Your task to perform on an android device: Open location settings Image 0: 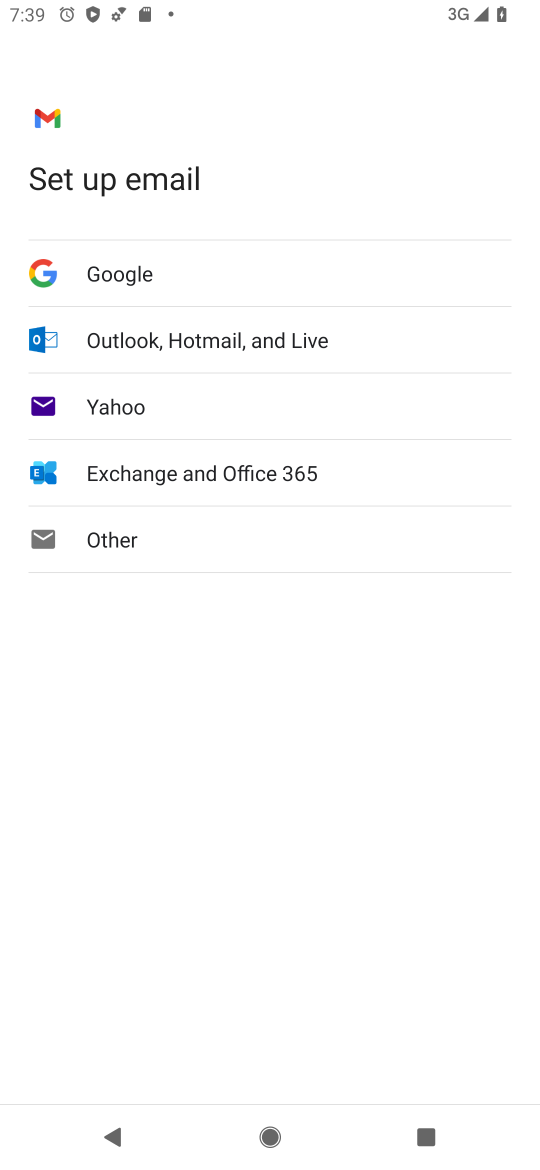
Step 0: press back button
Your task to perform on an android device: Open location settings Image 1: 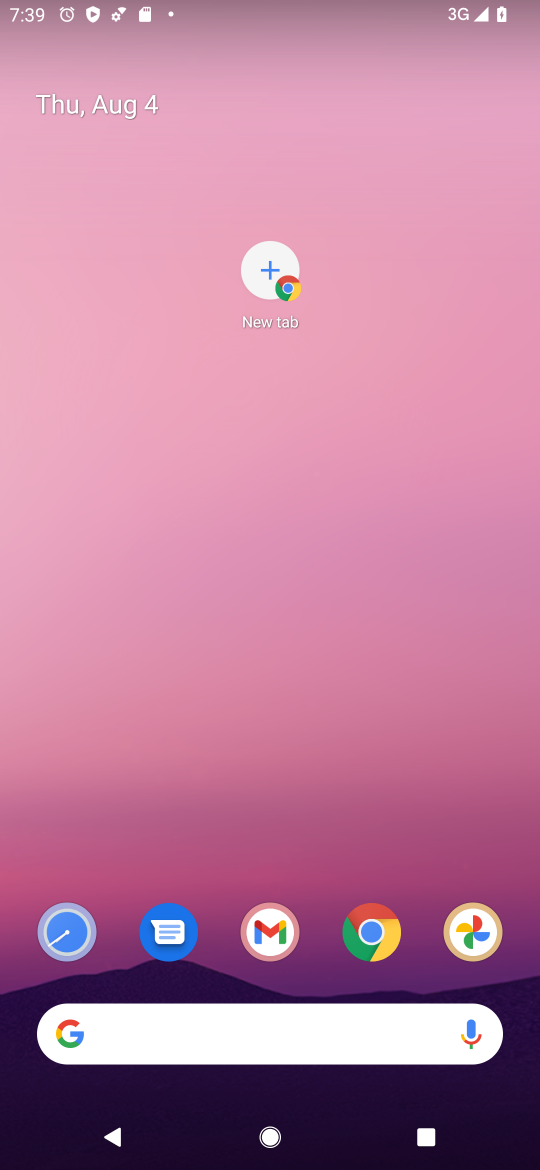
Step 1: click (255, 416)
Your task to perform on an android device: Open location settings Image 2: 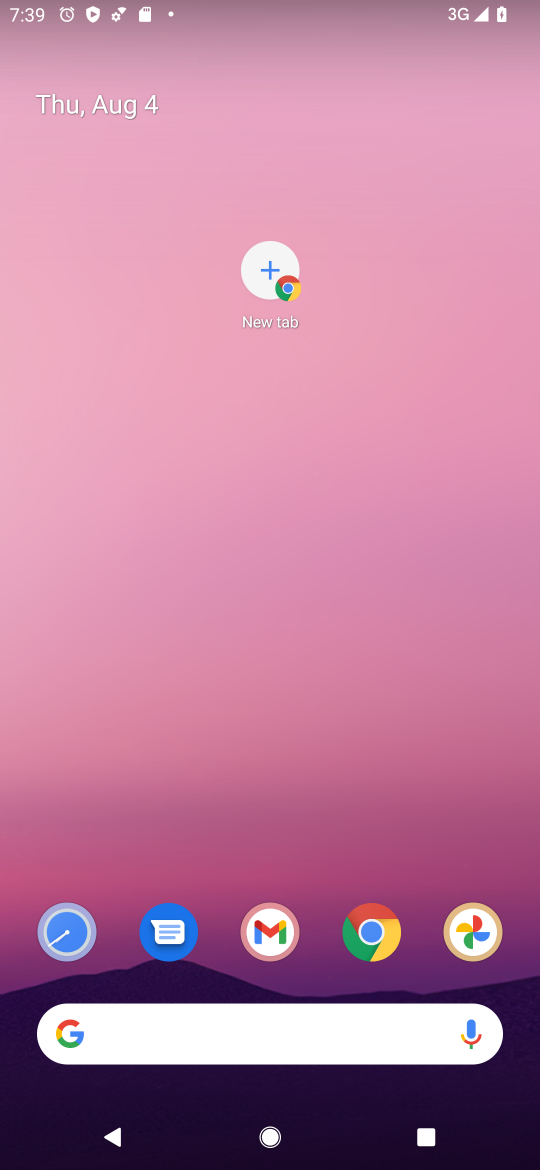
Step 2: drag from (271, 653) to (225, 179)
Your task to perform on an android device: Open location settings Image 3: 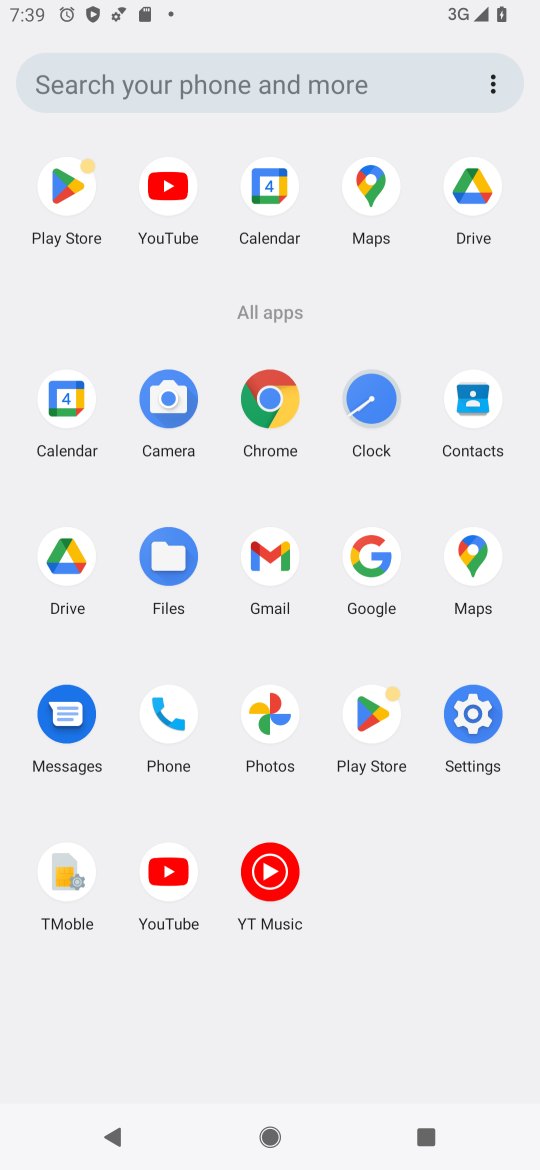
Step 3: click (143, 66)
Your task to perform on an android device: Open location settings Image 4: 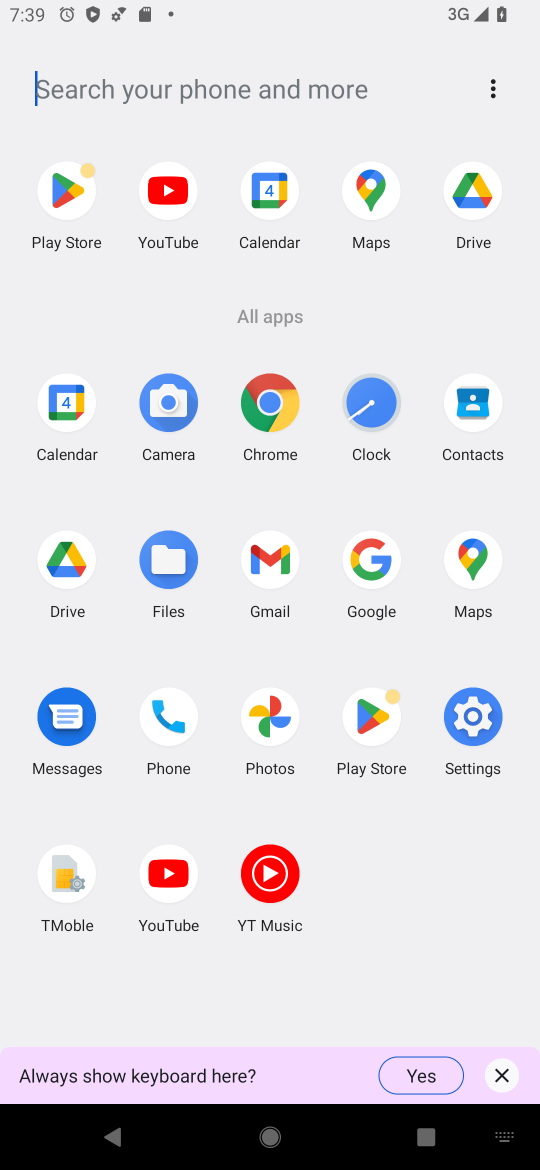
Step 4: click (480, 722)
Your task to perform on an android device: Open location settings Image 5: 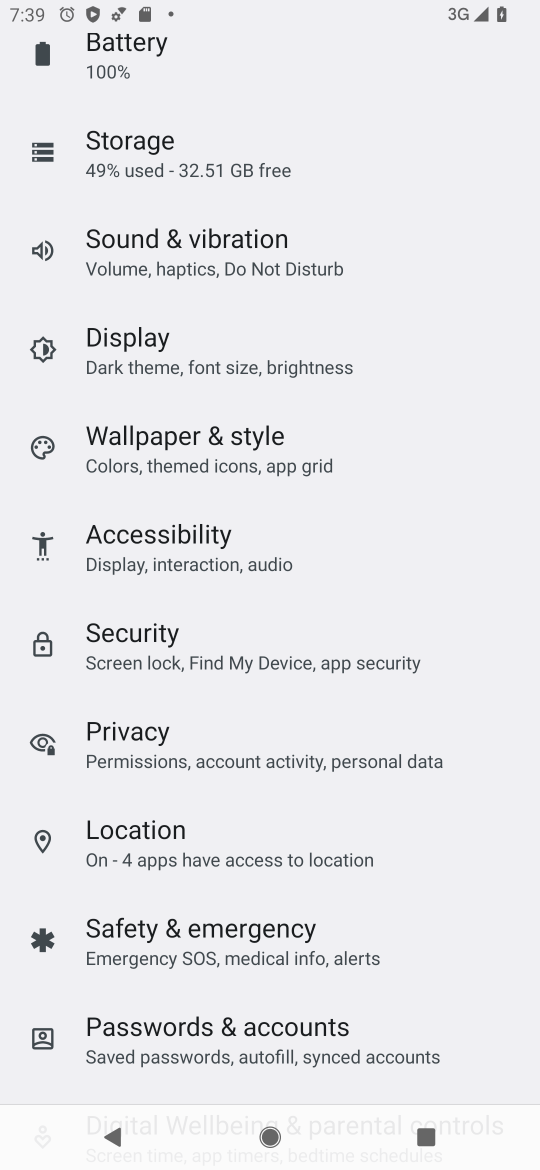
Step 5: click (159, 817)
Your task to perform on an android device: Open location settings Image 6: 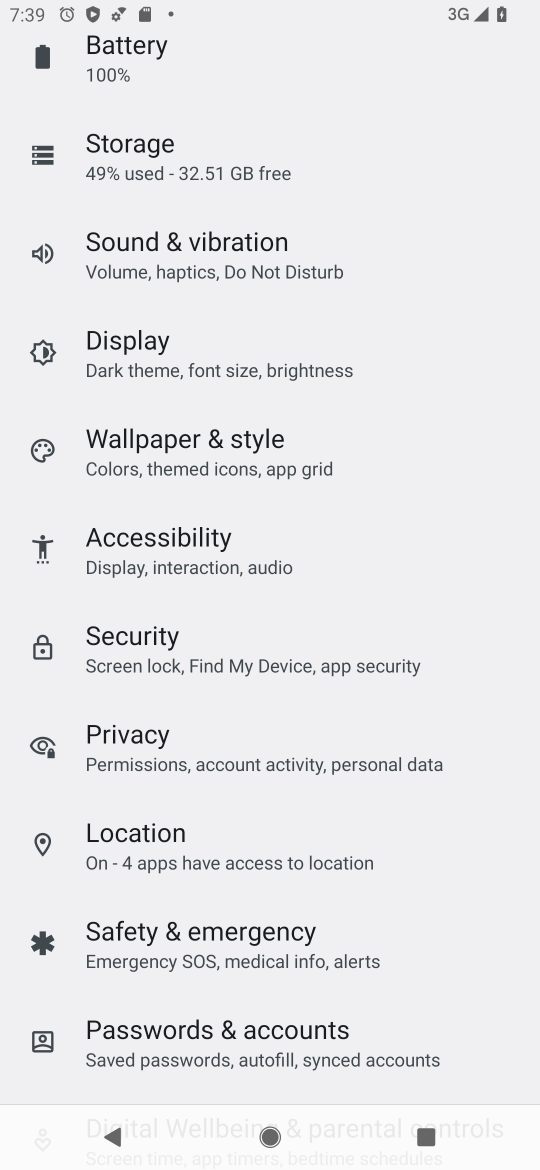
Step 6: click (153, 835)
Your task to perform on an android device: Open location settings Image 7: 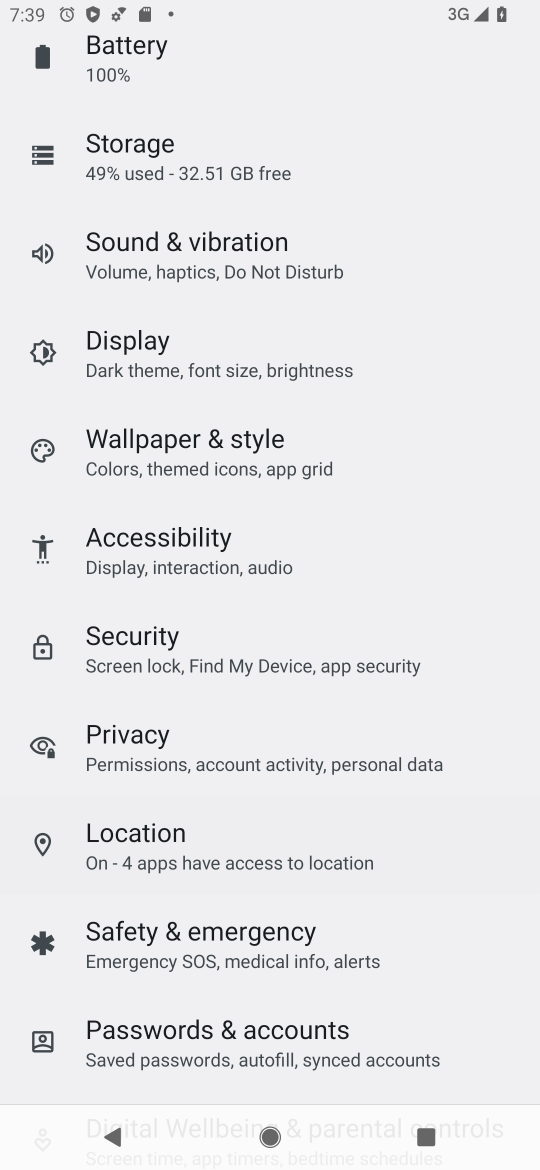
Step 7: click (153, 835)
Your task to perform on an android device: Open location settings Image 8: 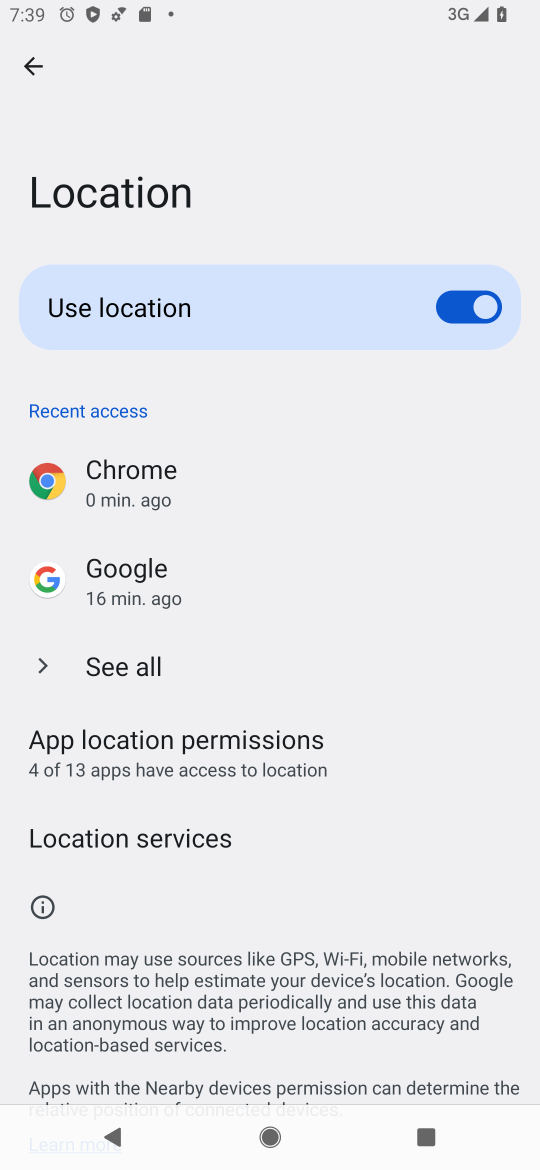
Step 8: click (153, 835)
Your task to perform on an android device: Open location settings Image 9: 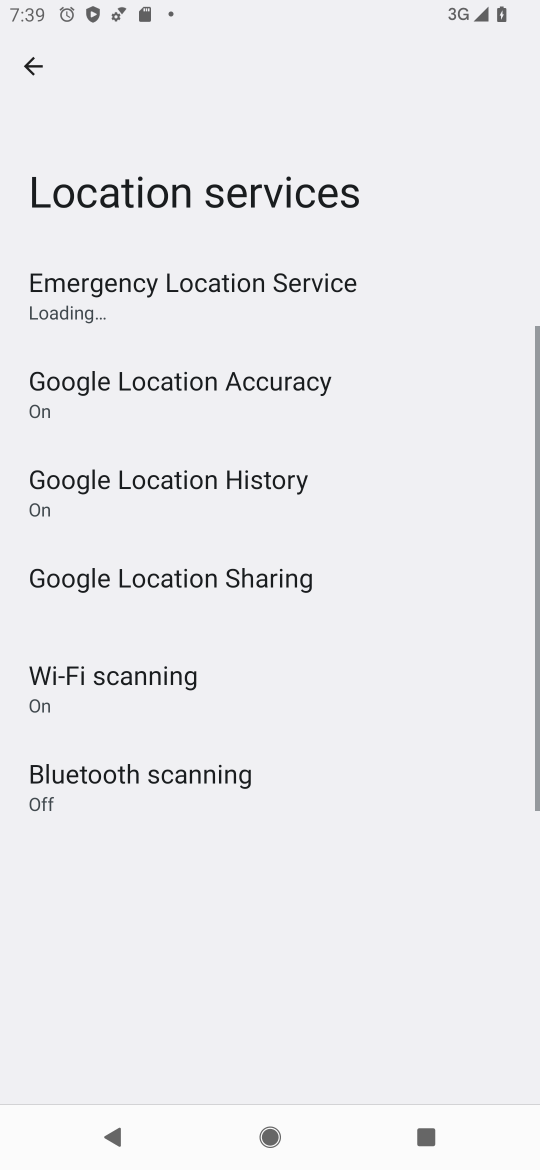
Step 9: task complete